Your task to perform on an android device: Go to Google Image 0: 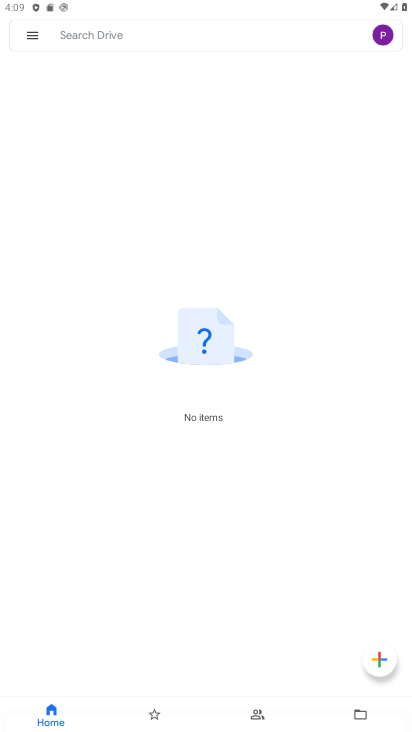
Step 0: press back button
Your task to perform on an android device: Go to Google Image 1: 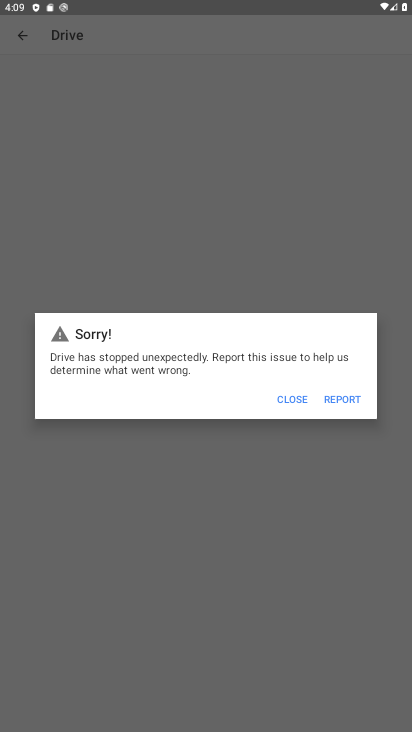
Step 1: click (289, 402)
Your task to perform on an android device: Go to Google Image 2: 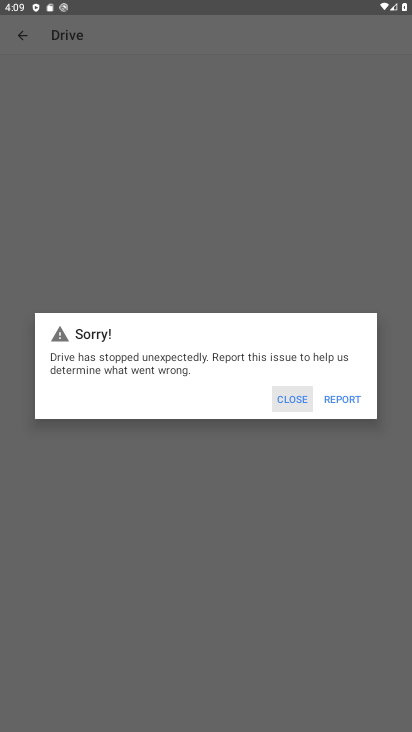
Step 2: click (287, 401)
Your task to perform on an android device: Go to Google Image 3: 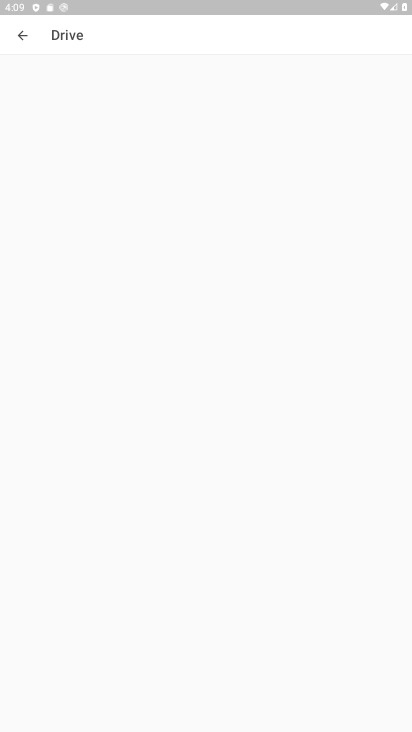
Step 3: click (287, 401)
Your task to perform on an android device: Go to Google Image 4: 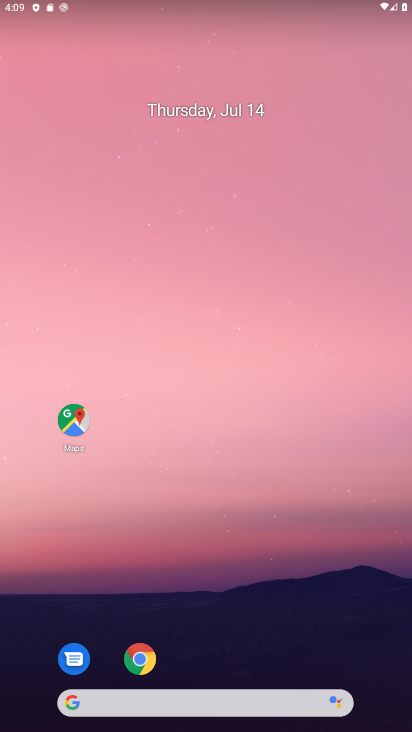
Step 4: drag from (291, 652) to (205, 123)
Your task to perform on an android device: Go to Google Image 5: 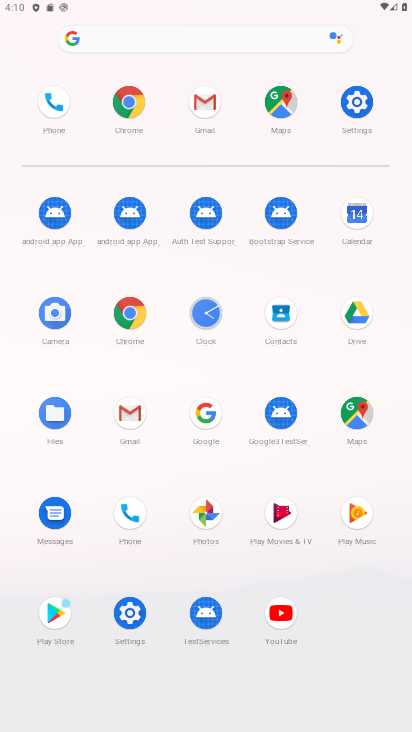
Step 5: click (205, 418)
Your task to perform on an android device: Go to Google Image 6: 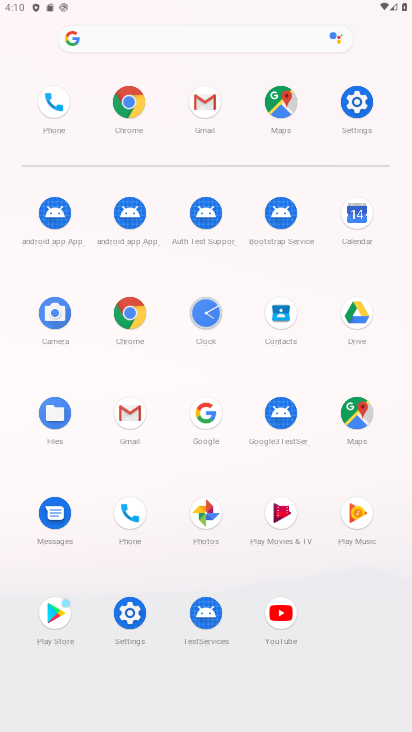
Step 6: click (207, 415)
Your task to perform on an android device: Go to Google Image 7: 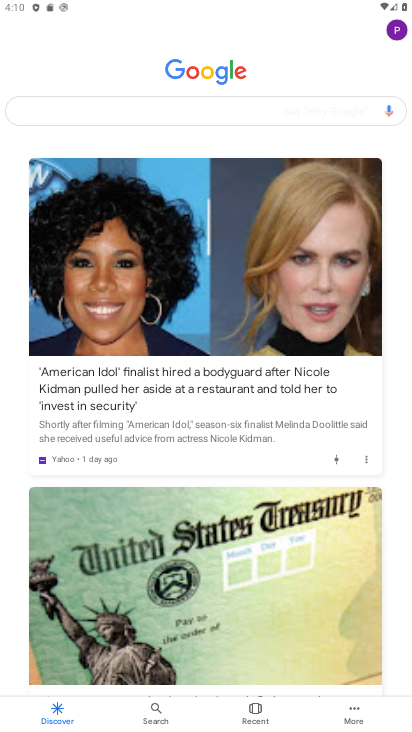
Step 7: task complete